Your task to perform on an android device: toggle sleep mode Image 0: 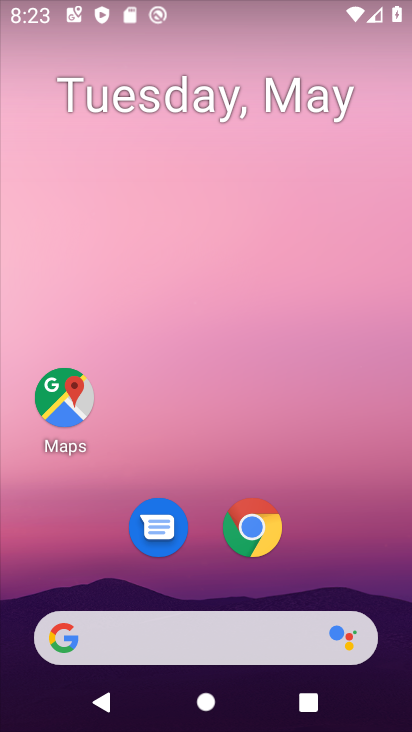
Step 0: drag from (102, 608) to (285, 175)
Your task to perform on an android device: toggle sleep mode Image 1: 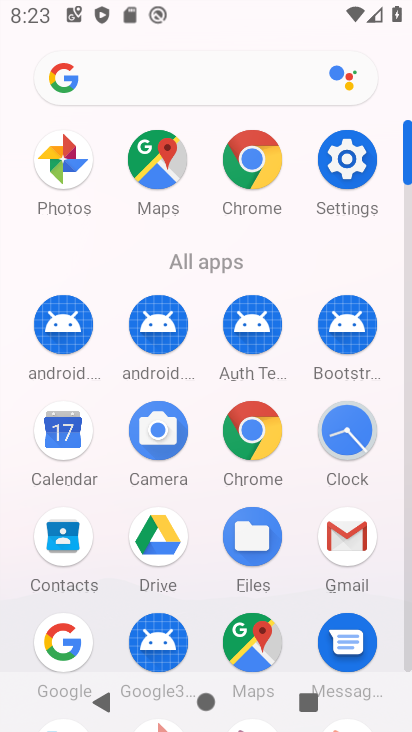
Step 1: drag from (152, 615) to (351, 243)
Your task to perform on an android device: toggle sleep mode Image 2: 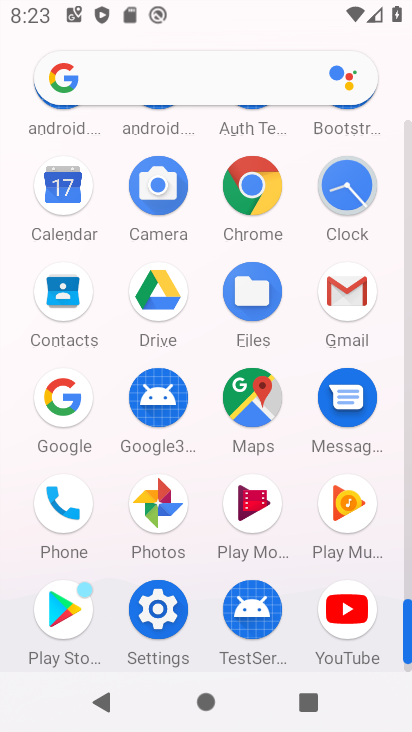
Step 2: click (142, 623)
Your task to perform on an android device: toggle sleep mode Image 3: 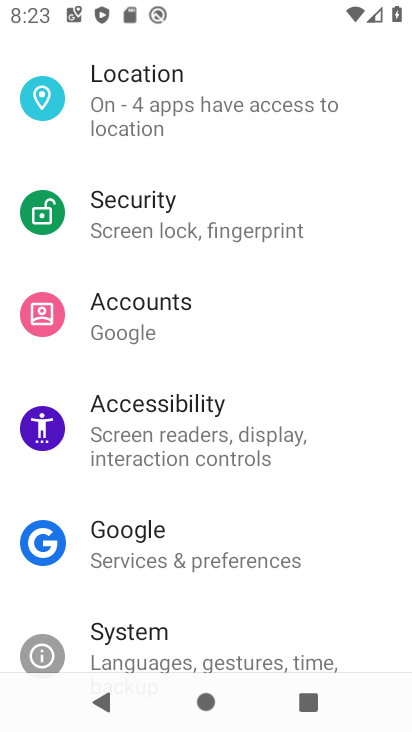
Step 3: drag from (222, 171) to (149, 540)
Your task to perform on an android device: toggle sleep mode Image 4: 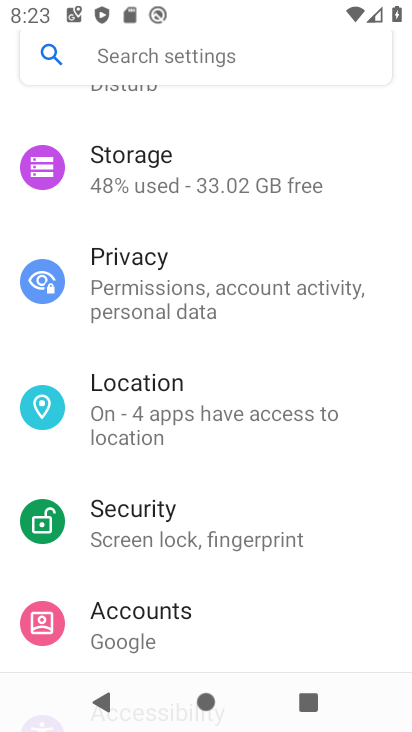
Step 4: drag from (208, 198) to (156, 553)
Your task to perform on an android device: toggle sleep mode Image 5: 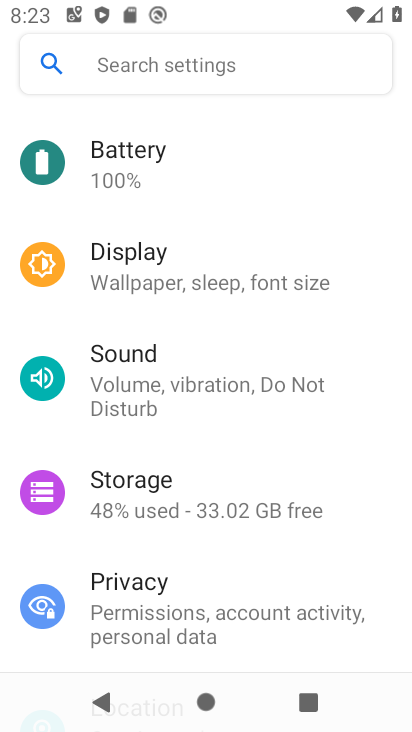
Step 5: click (153, 278)
Your task to perform on an android device: toggle sleep mode Image 6: 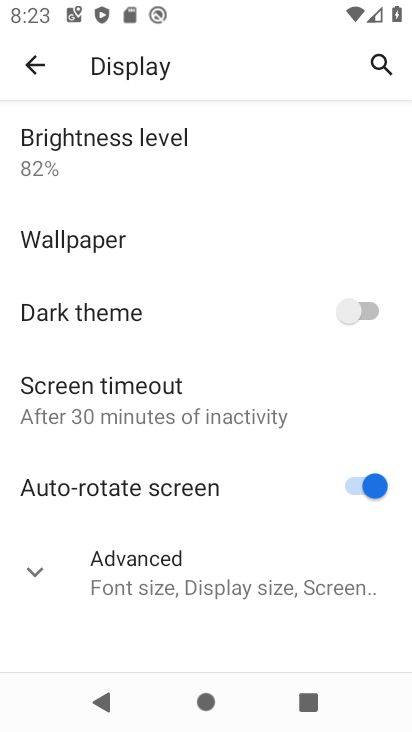
Step 6: click (187, 589)
Your task to perform on an android device: toggle sleep mode Image 7: 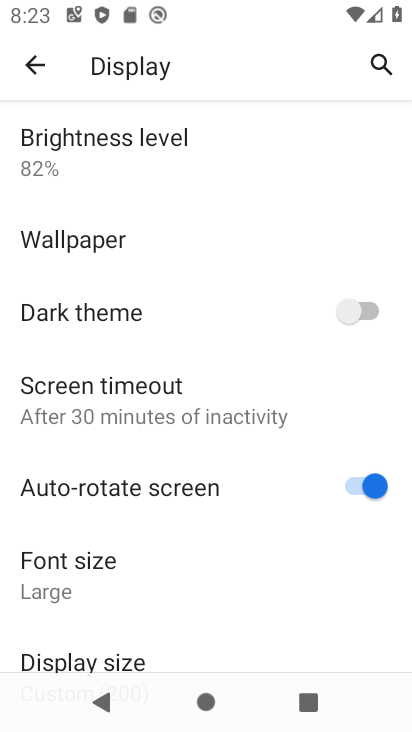
Step 7: task complete